Your task to perform on an android device: Open Yahoo.com Image 0: 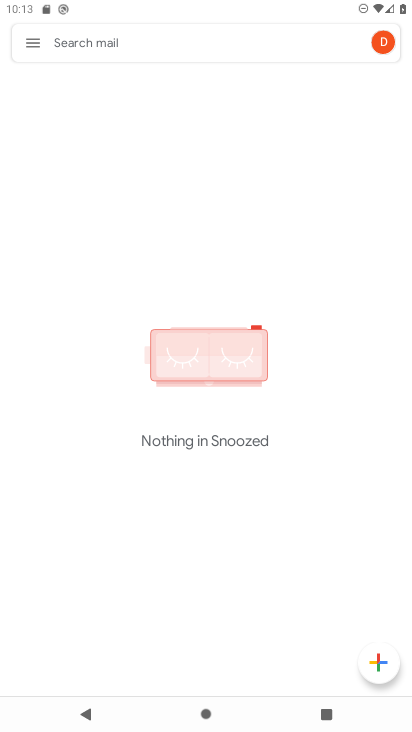
Step 0: press home button
Your task to perform on an android device: Open Yahoo.com Image 1: 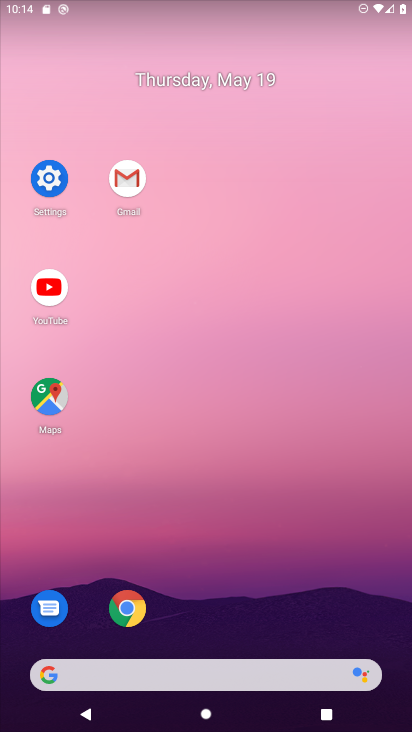
Step 1: click (133, 608)
Your task to perform on an android device: Open Yahoo.com Image 2: 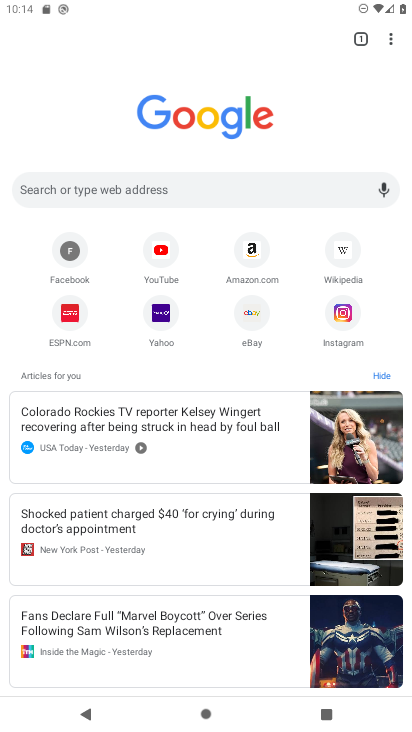
Step 2: click (161, 314)
Your task to perform on an android device: Open Yahoo.com Image 3: 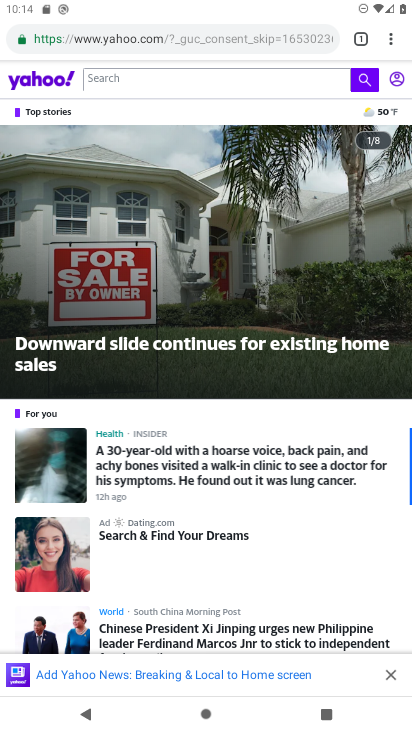
Step 3: task complete